Your task to perform on an android device: Turn off the flashlight Image 0: 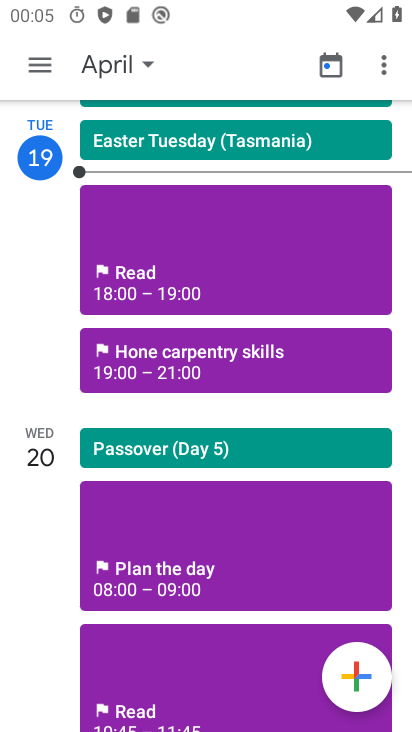
Step 0: drag from (346, 555) to (319, 74)
Your task to perform on an android device: Turn off the flashlight Image 1: 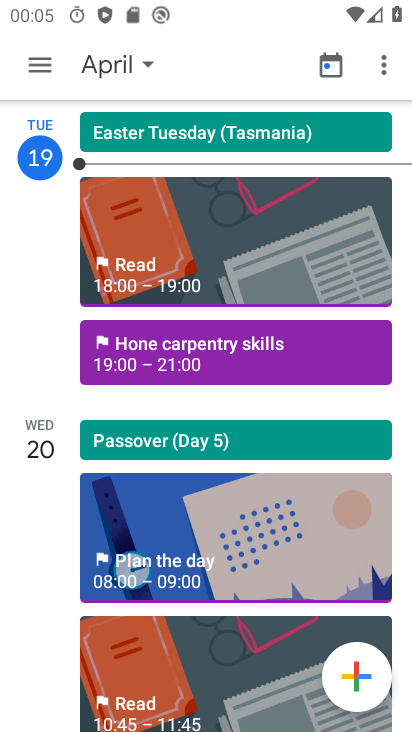
Step 1: press home button
Your task to perform on an android device: Turn off the flashlight Image 2: 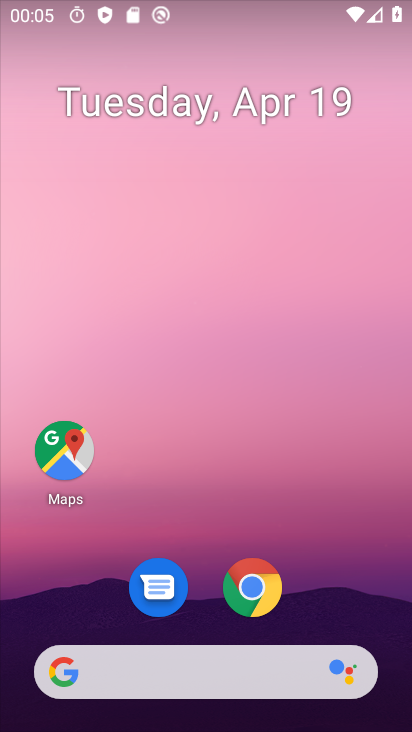
Step 2: drag from (369, 583) to (381, 181)
Your task to perform on an android device: Turn off the flashlight Image 3: 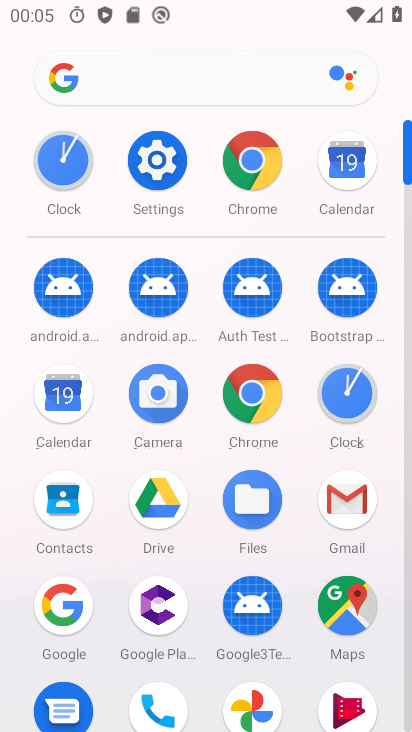
Step 3: click (170, 170)
Your task to perform on an android device: Turn off the flashlight Image 4: 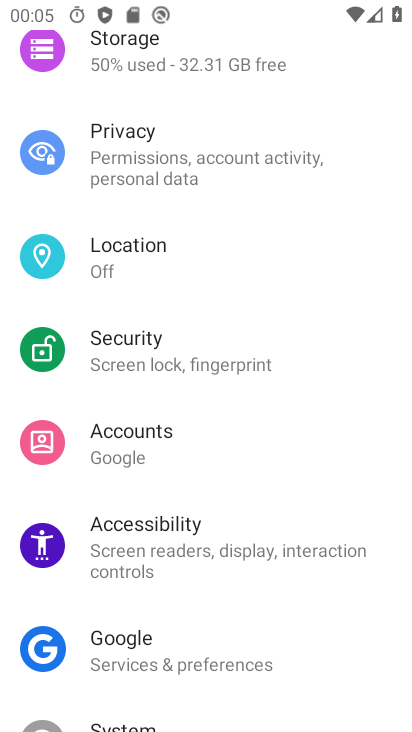
Step 4: drag from (341, 213) to (318, 502)
Your task to perform on an android device: Turn off the flashlight Image 5: 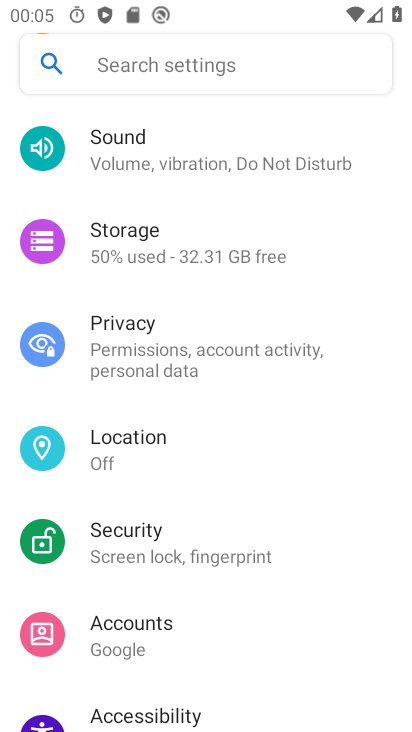
Step 5: click (218, 78)
Your task to perform on an android device: Turn off the flashlight Image 6: 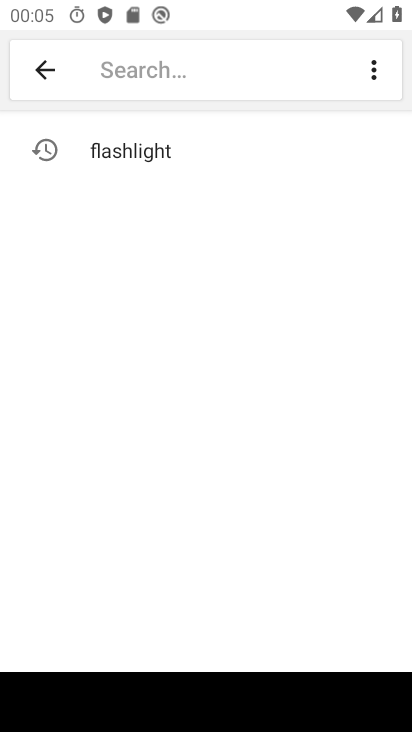
Step 6: type "flashlight"
Your task to perform on an android device: Turn off the flashlight Image 7: 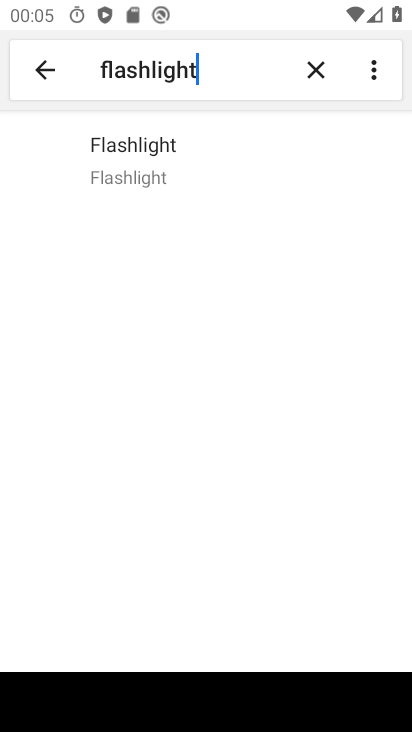
Step 7: click (167, 151)
Your task to perform on an android device: Turn off the flashlight Image 8: 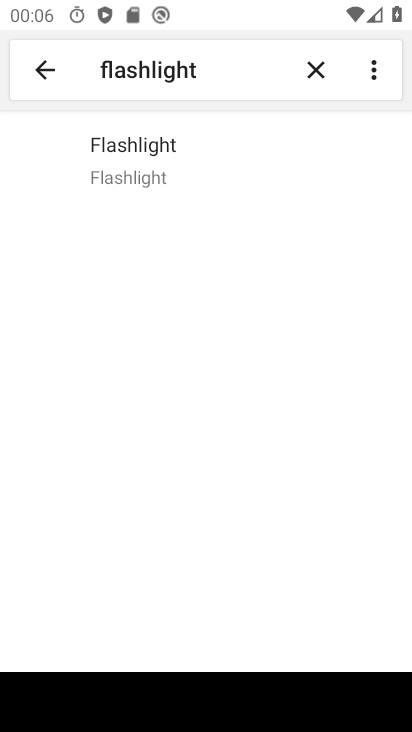
Step 8: click (165, 179)
Your task to perform on an android device: Turn off the flashlight Image 9: 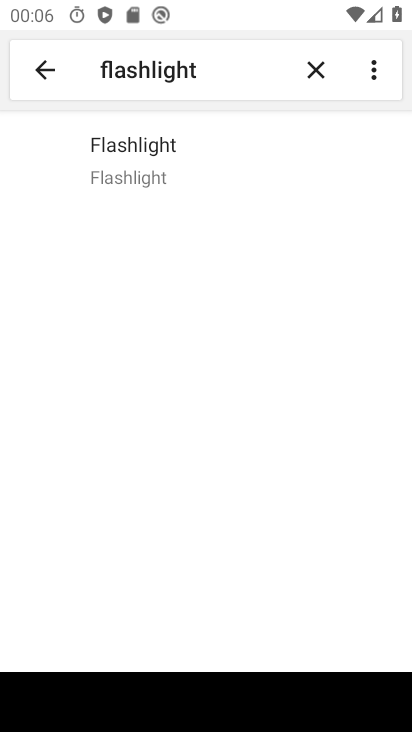
Step 9: task complete